Your task to perform on an android device: Open the Play Movies app and select the watchlist tab. Image 0: 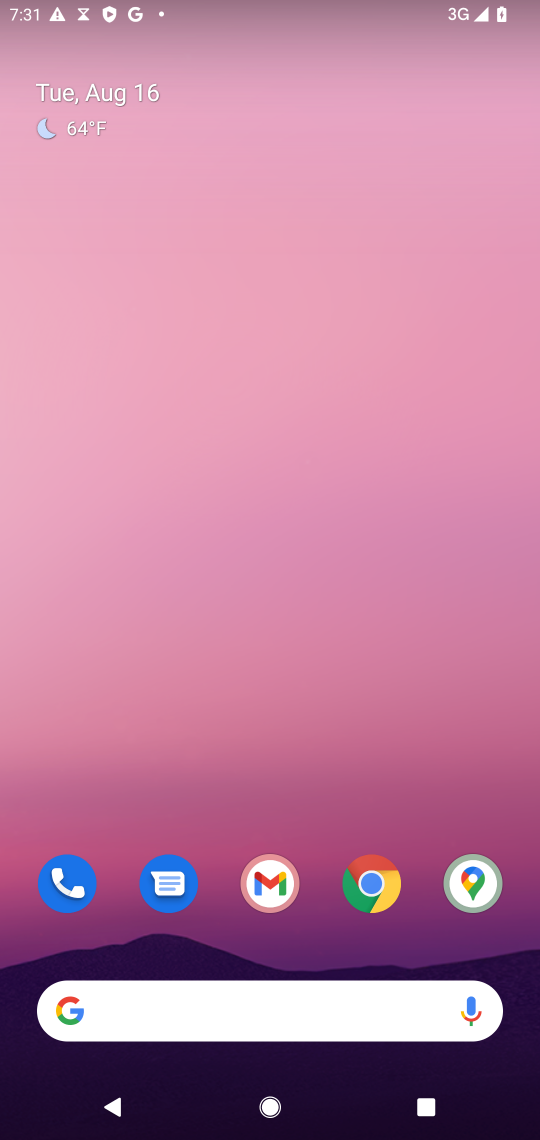
Step 0: drag from (230, 1022) to (277, 224)
Your task to perform on an android device: Open the Play Movies app and select the watchlist tab. Image 1: 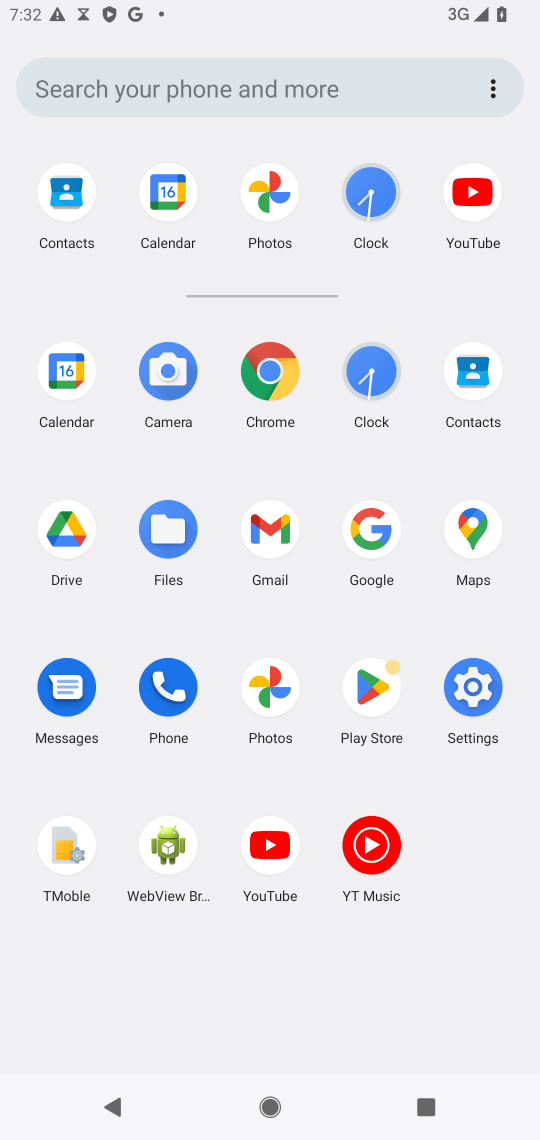
Step 1: click (341, 75)
Your task to perform on an android device: Open the Play Movies app and select the watchlist tab. Image 2: 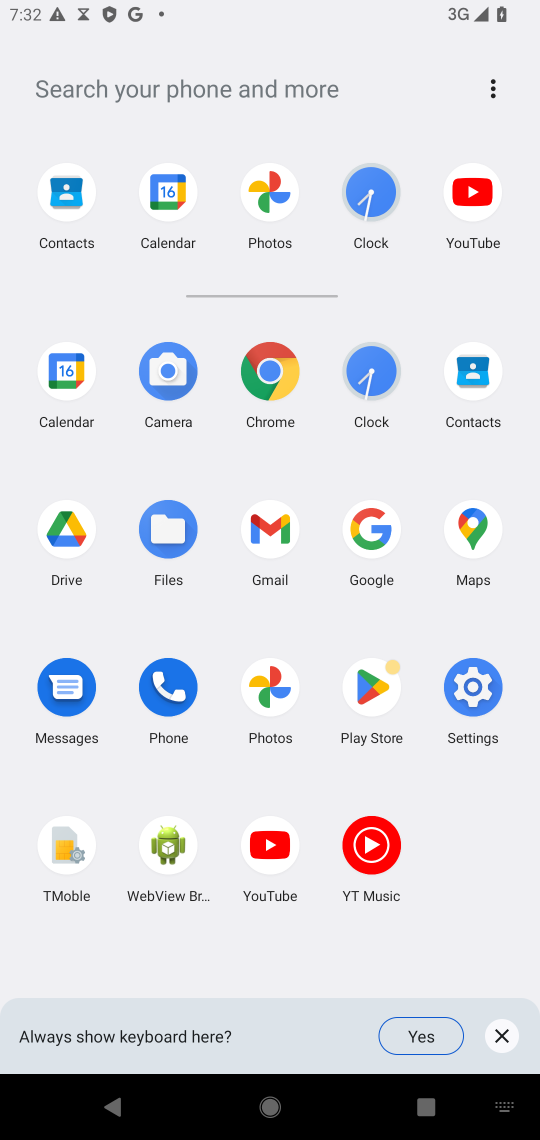
Step 2: type "Play Movies"
Your task to perform on an android device: Open the Play Movies app and select the watchlist tab. Image 3: 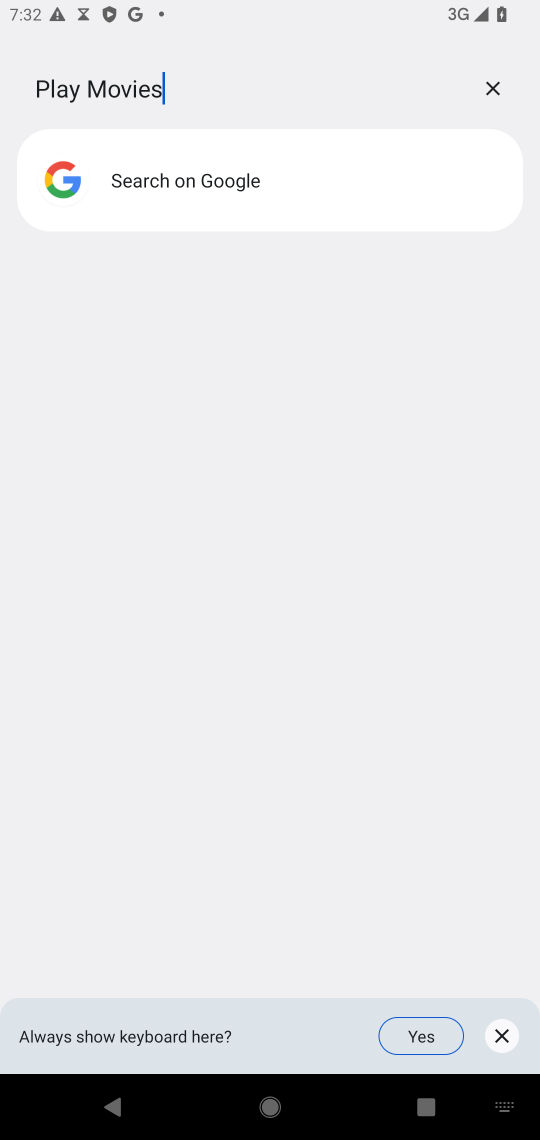
Step 3: task complete